Your task to perform on an android device: Search for coffee table on Crate & Barrel Image 0: 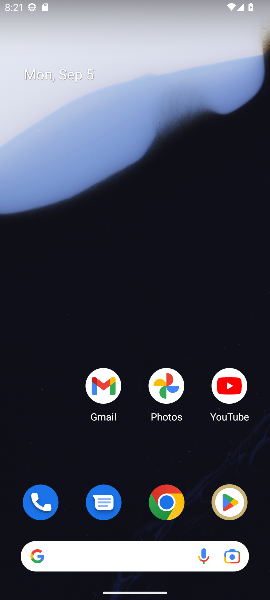
Step 0: drag from (63, 455) to (13, 29)
Your task to perform on an android device: Search for coffee table on Crate & Barrel Image 1: 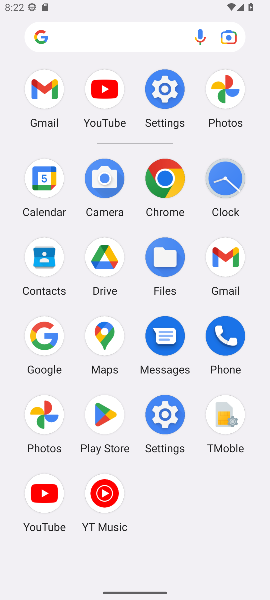
Step 1: click (53, 352)
Your task to perform on an android device: Search for coffee table on Crate & Barrel Image 2: 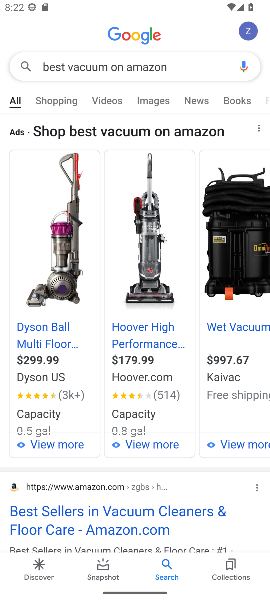
Step 2: press back button
Your task to perform on an android device: Search for coffee table on Crate & Barrel Image 3: 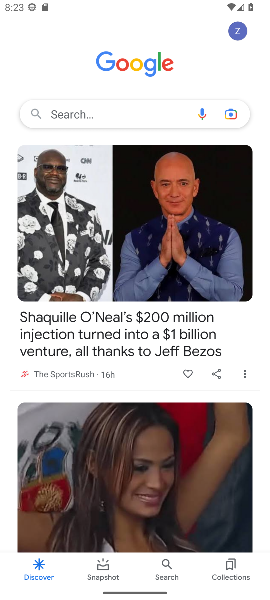
Step 3: click (108, 110)
Your task to perform on an android device: Search for coffee table on Crate & Barrel Image 4: 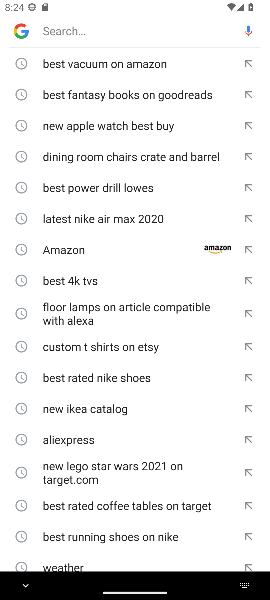
Step 4: type "coffee table on Crate & Barrel"
Your task to perform on an android device: Search for coffee table on Crate & Barrel Image 5: 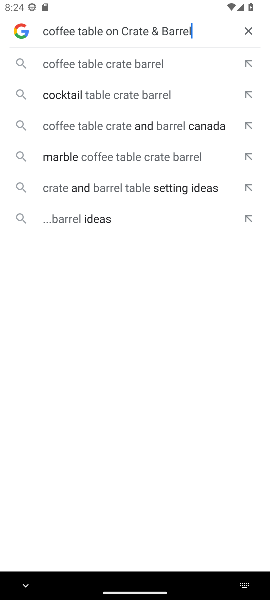
Step 5: click (87, 68)
Your task to perform on an android device: Search for coffee table on Crate & Barrel Image 6: 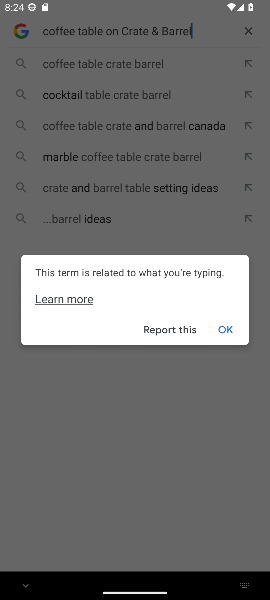
Step 6: click (223, 319)
Your task to perform on an android device: Search for coffee table on Crate & Barrel Image 7: 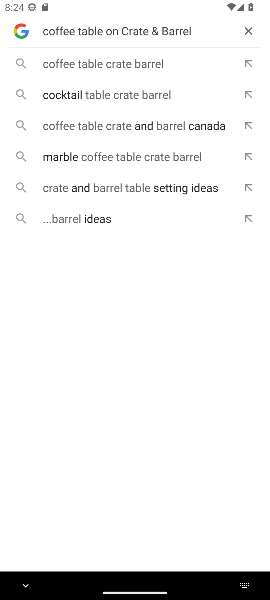
Step 7: click (125, 65)
Your task to perform on an android device: Search for coffee table on Crate & Barrel Image 8: 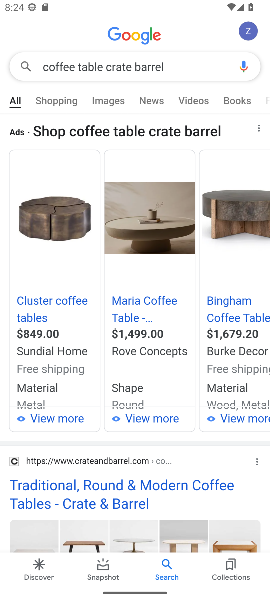
Step 8: task complete